Your task to perform on an android device: Open settings Image 0: 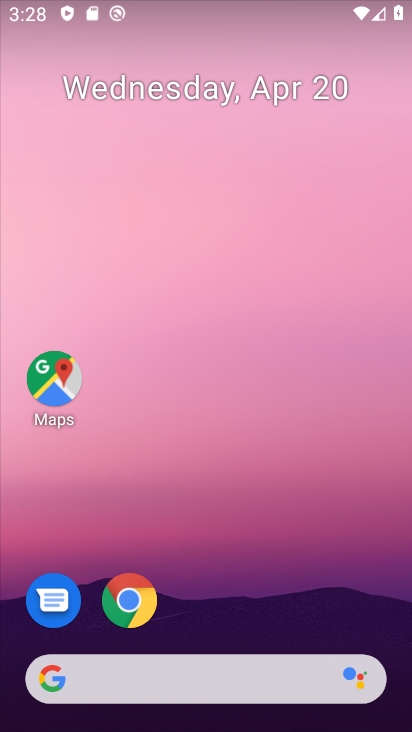
Step 0: drag from (255, 517) to (256, 154)
Your task to perform on an android device: Open settings Image 1: 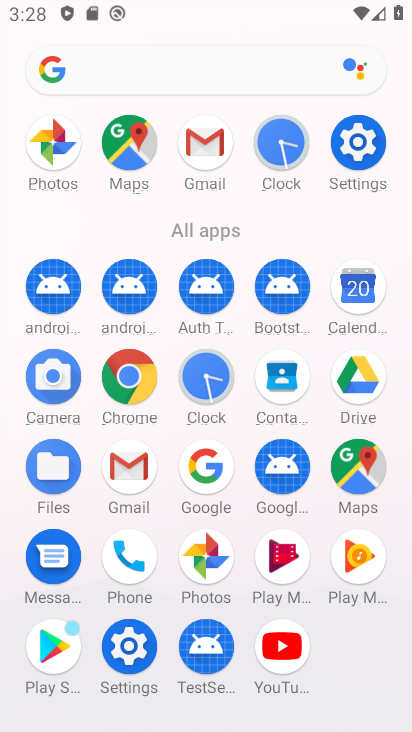
Step 1: click (117, 654)
Your task to perform on an android device: Open settings Image 2: 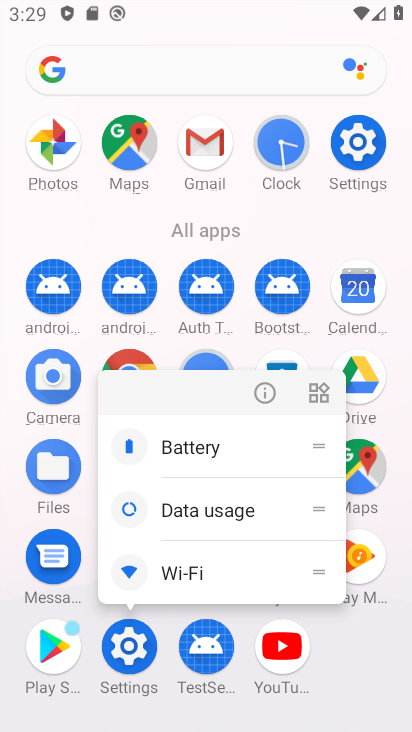
Step 2: click (125, 649)
Your task to perform on an android device: Open settings Image 3: 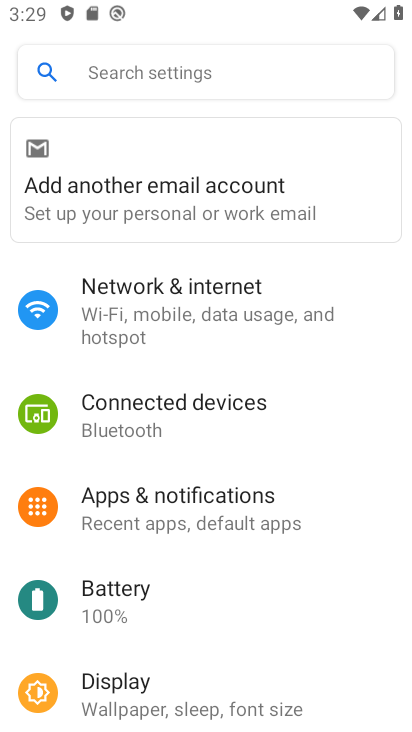
Step 3: task complete